Your task to perform on an android device: Go to Reddit.com Image 0: 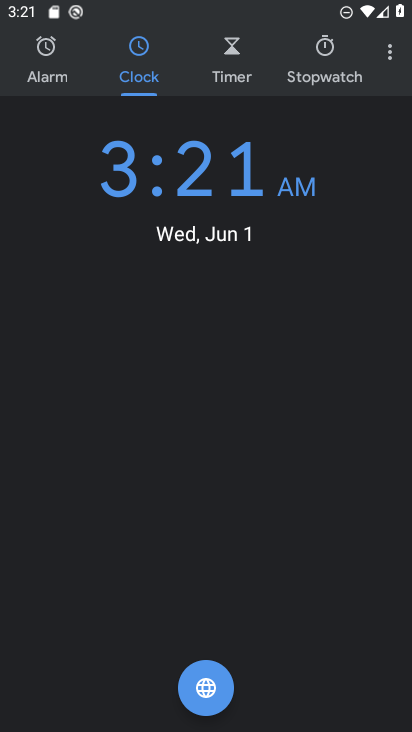
Step 0: press home button
Your task to perform on an android device: Go to Reddit.com Image 1: 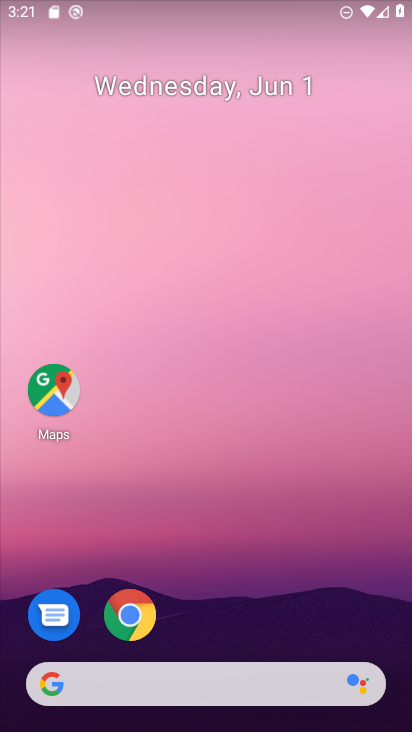
Step 1: click (125, 607)
Your task to perform on an android device: Go to Reddit.com Image 2: 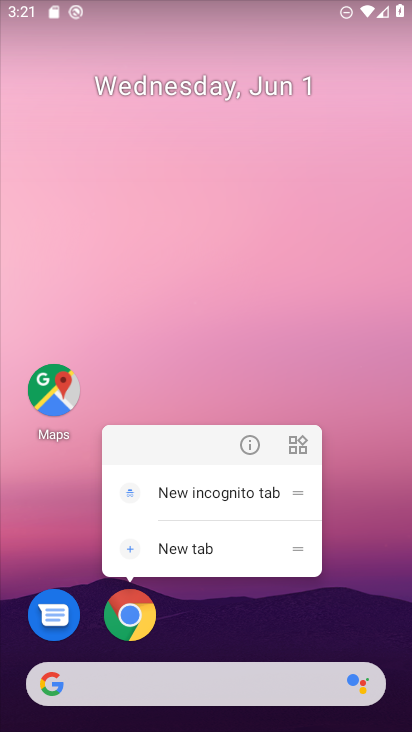
Step 2: click (125, 607)
Your task to perform on an android device: Go to Reddit.com Image 3: 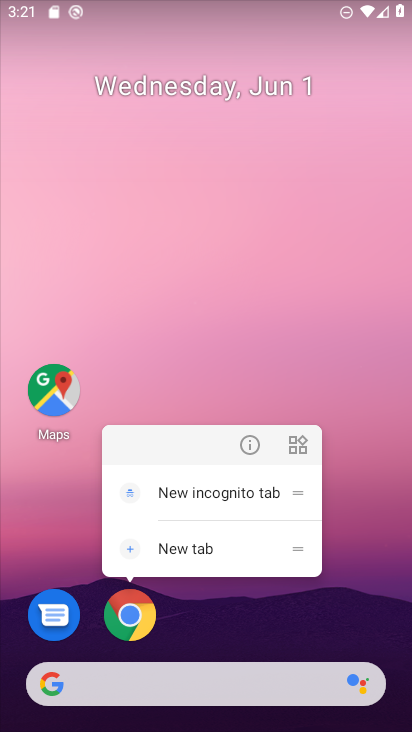
Step 3: click (128, 605)
Your task to perform on an android device: Go to Reddit.com Image 4: 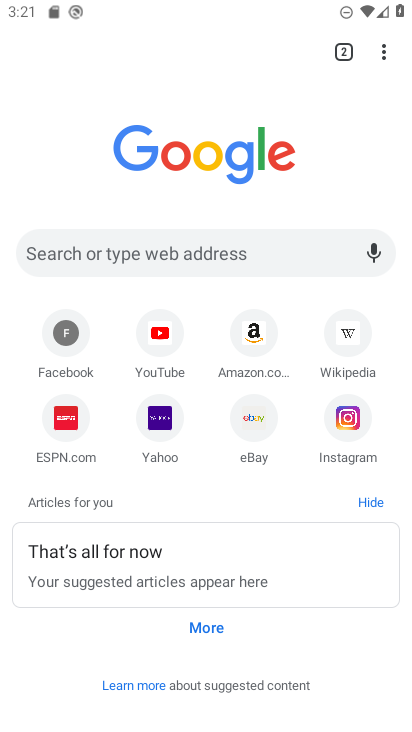
Step 4: click (108, 250)
Your task to perform on an android device: Go to Reddit.com Image 5: 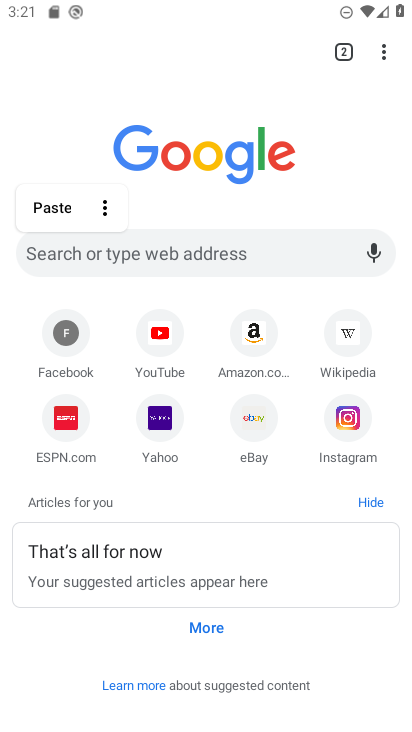
Step 5: type "reddit"
Your task to perform on an android device: Go to Reddit.com Image 6: 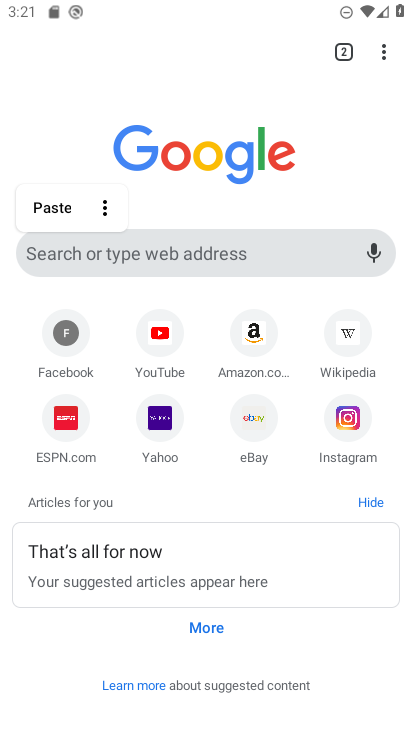
Step 6: click (163, 244)
Your task to perform on an android device: Go to Reddit.com Image 7: 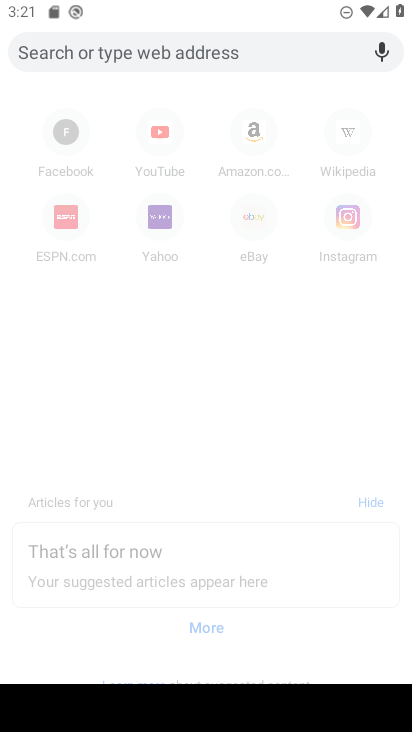
Step 7: type "reddit"
Your task to perform on an android device: Go to Reddit.com Image 8: 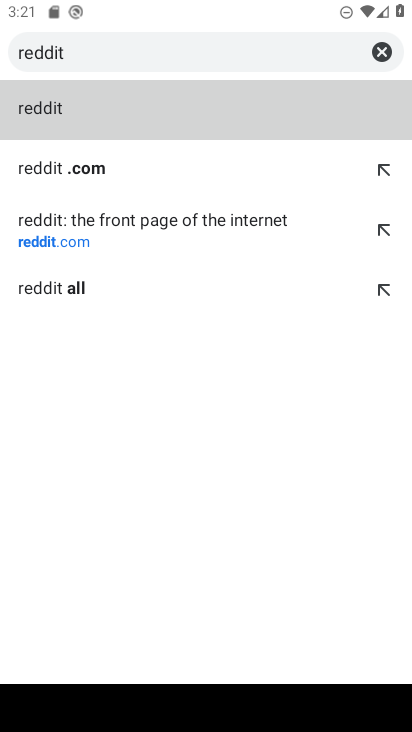
Step 8: click (105, 232)
Your task to perform on an android device: Go to Reddit.com Image 9: 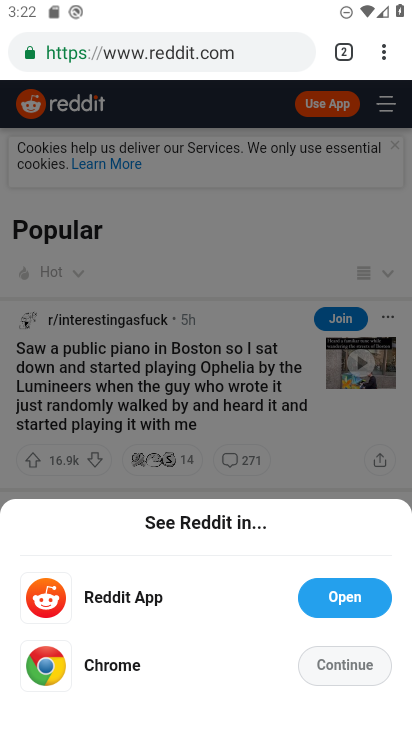
Step 9: click (347, 668)
Your task to perform on an android device: Go to Reddit.com Image 10: 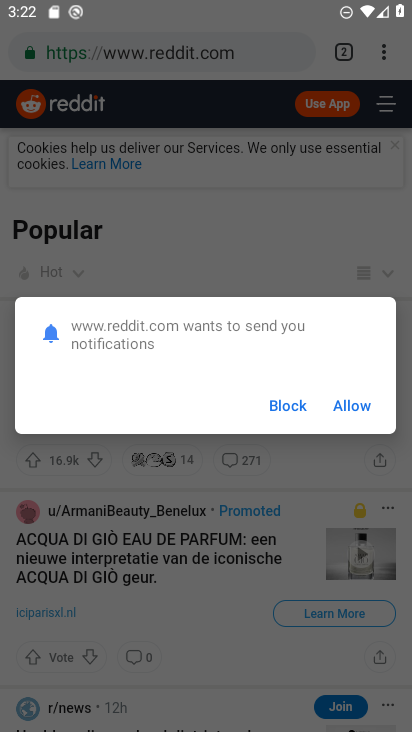
Step 10: click (356, 411)
Your task to perform on an android device: Go to Reddit.com Image 11: 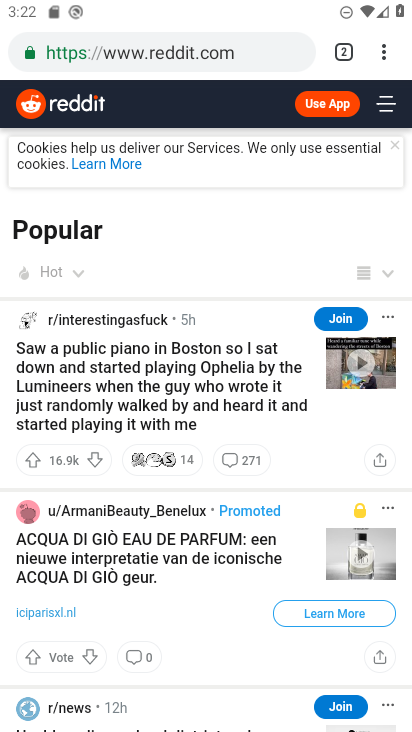
Step 11: task complete